Your task to perform on an android device: Show the shopping cart on amazon.com. Search for "usb-c to usb-b" on amazon.com, select the first entry, add it to the cart, then select checkout. Image 0: 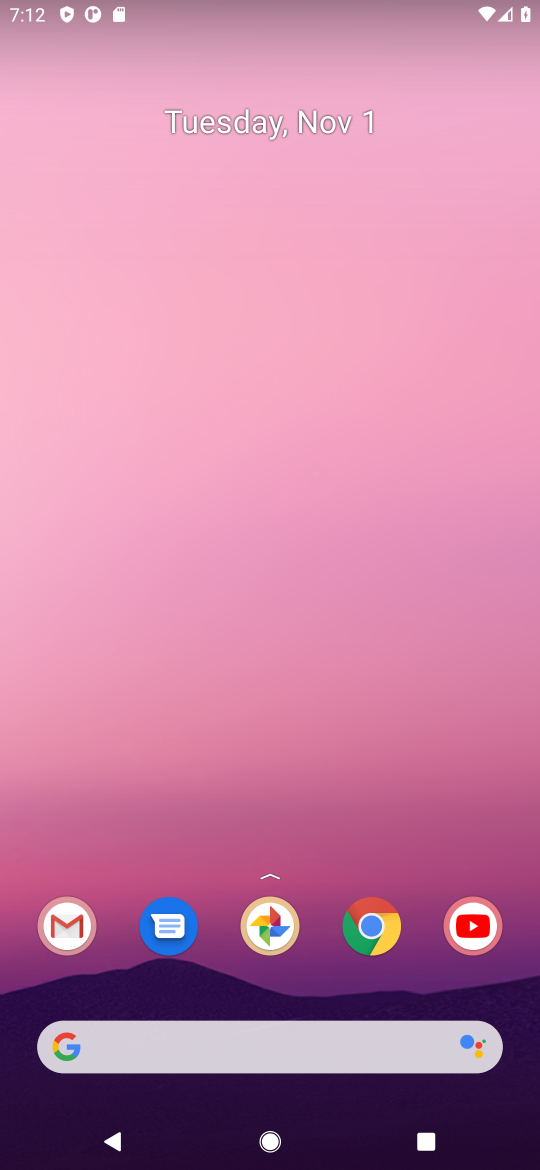
Step 0: press home button
Your task to perform on an android device: Show the shopping cart on amazon.com. Search for "usb-c to usb-b" on amazon.com, select the first entry, add it to the cart, then select checkout. Image 1: 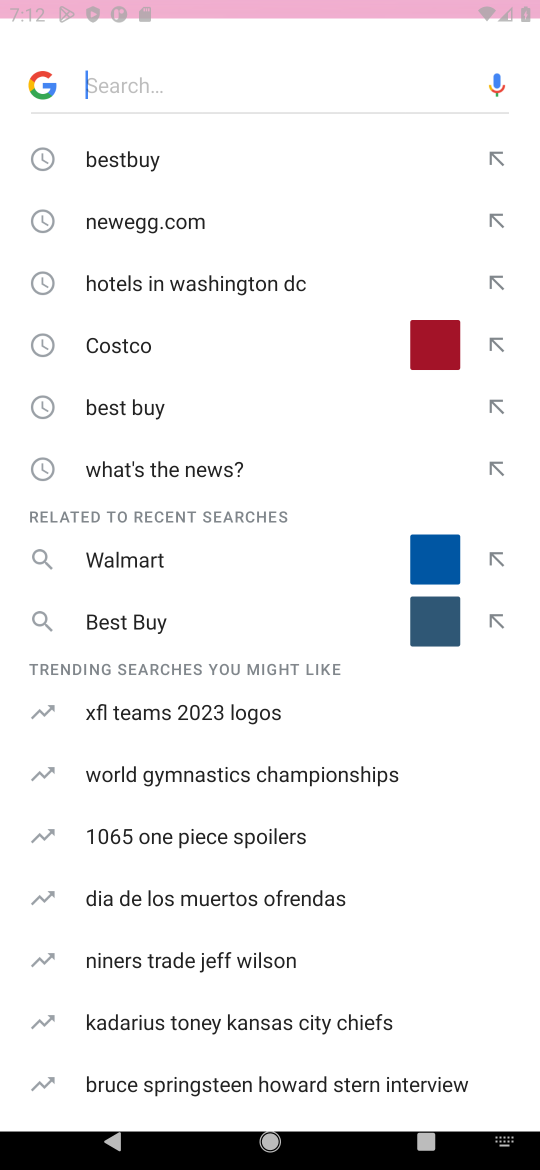
Step 1: click (380, 918)
Your task to perform on an android device: Show the shopping cart on amazon.com. Search for "usb-c to usb-b" on amazon.com, select the first entry, add it to the cart, then select checkout. Image 2: 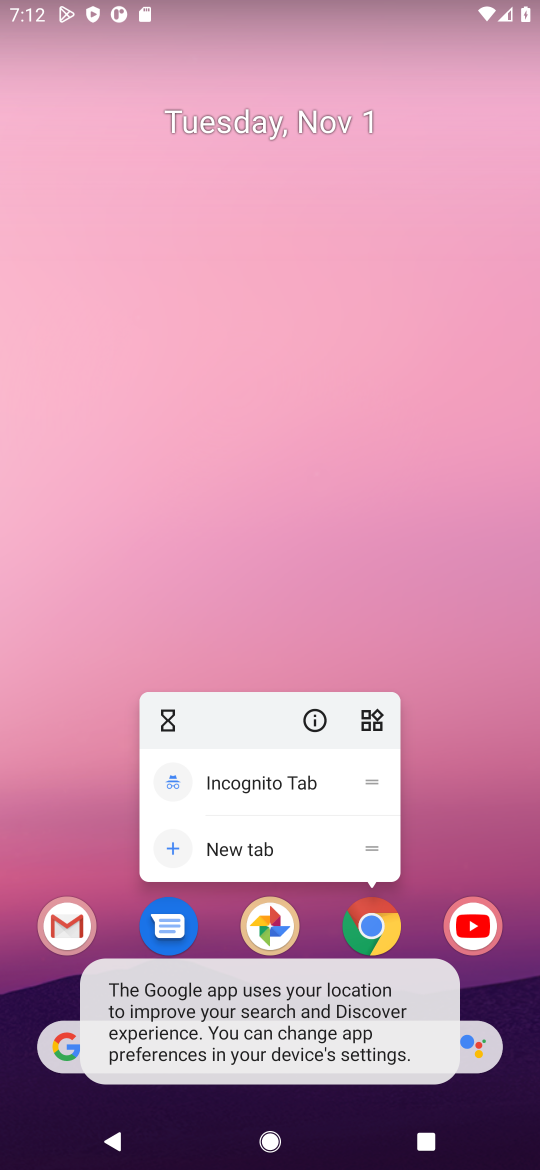
Step 2: click (379, 921)
Your task to perform on an android device: Show the shopping cart on amazon.com. Search for "usb-c to usb-b" on amazon.com, select the first entry, add it to the cart, then select checkout. Image 3: 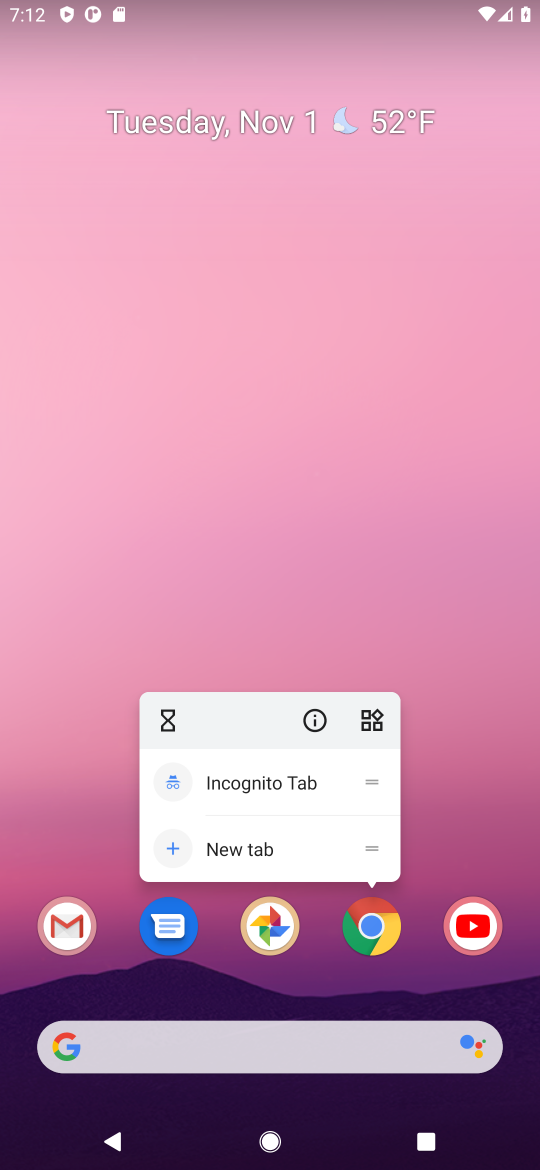
Step 3: click (379, 921)
Your task to perform on an android device: Show the shopping cart on amazon.com. Search for "usb-c to usb-b" on amazon.com, select the first entry, add it to the cart, then select checkout. Image 4: 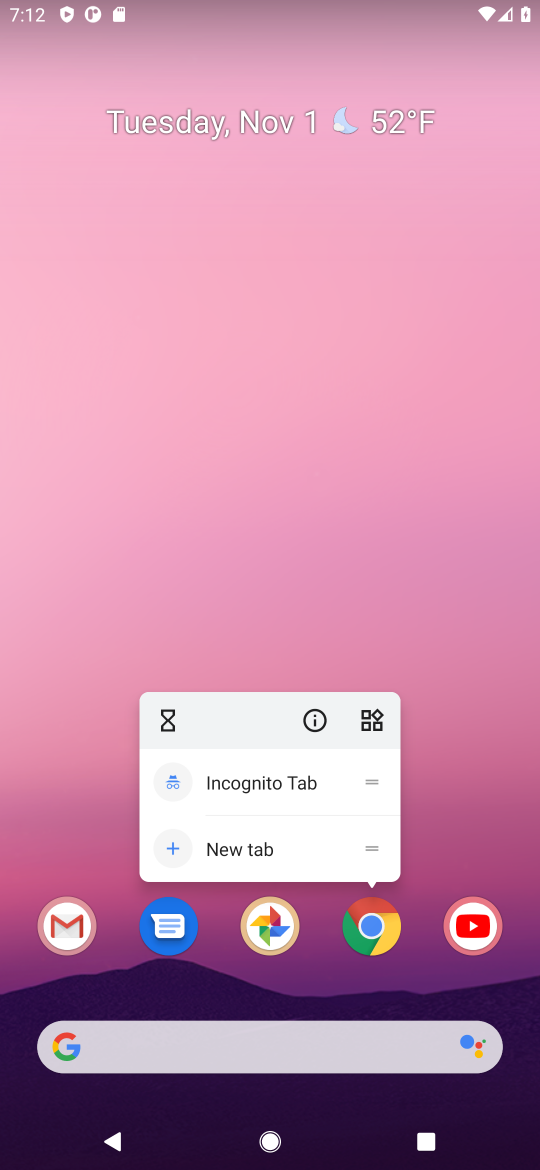
Step 4: click (379, 921)
Your task to perform on an android device: Show the shopping cart on amazon.com. Search for "usb-c to usb-b" on amazon.com, select the first entry, add it to the cart, then select checkout. Image 5: 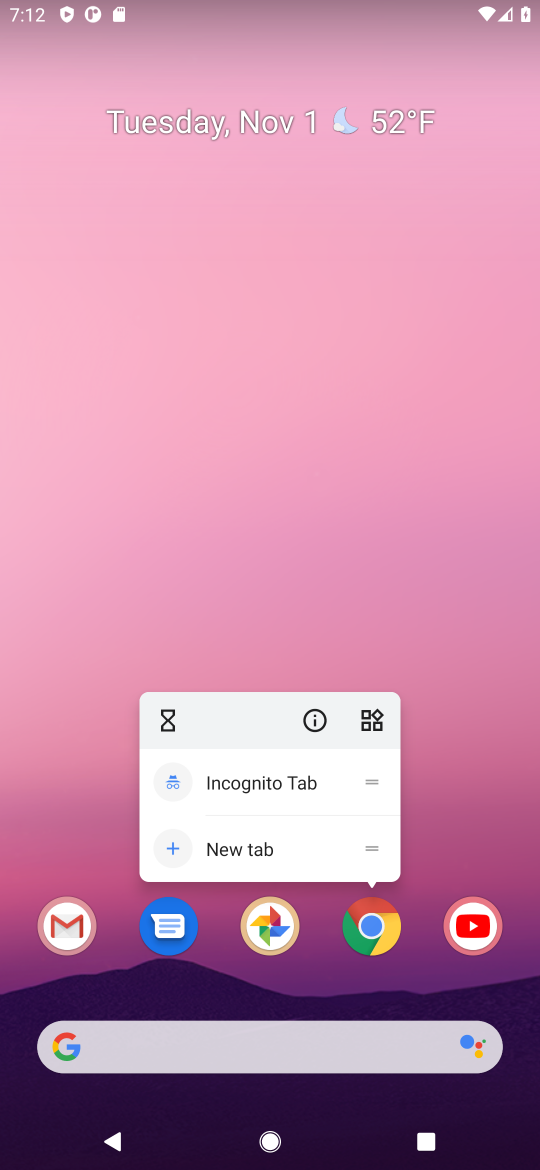
Step 5: click (362, 918)
Your task to perform on an android device: Show the shopping cart on amazon.com. Search for "usb-c to usb-b" on amazon.com, select the first entry, add it to the cart, then select checkout. Image 6: 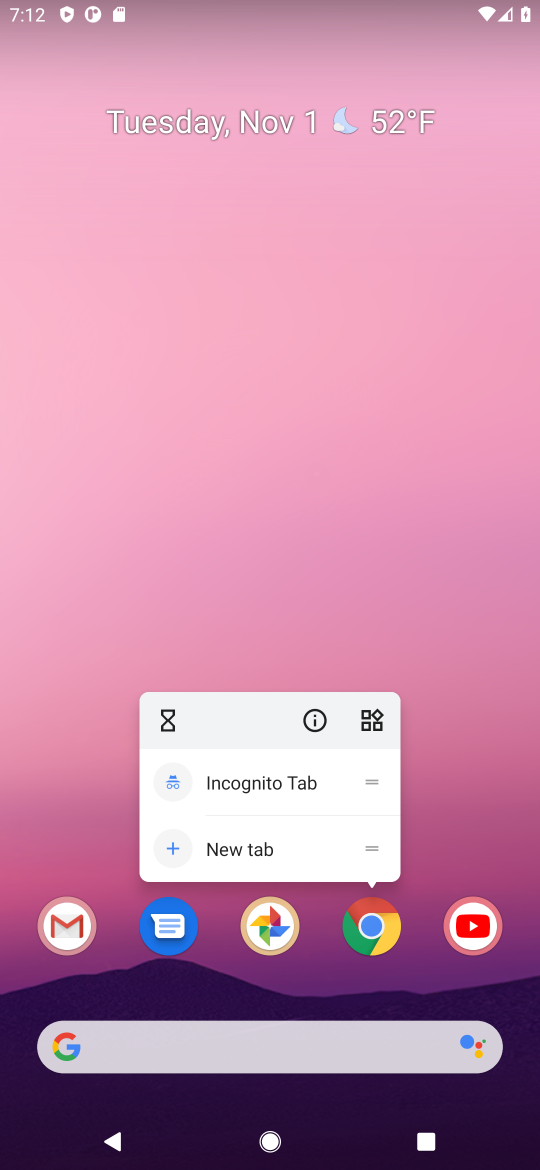
Step 6: click (359, 915)
Your task to perform on an android device: Show the shopping cart on amazon.com. Search for "usb-c to usb-b" on amazon.com, select the first entry, add it to the cart, then select checkout. Image 7: 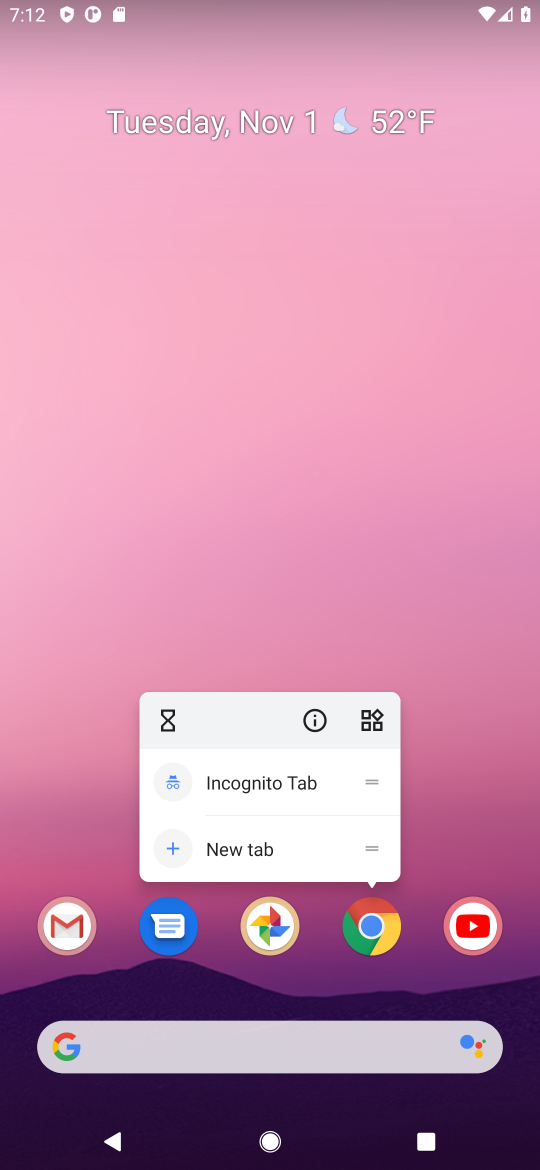
Step 7: click (377, 955)
Your task to perform on an android device: Show the shopping cart on amazon.com. Search for "usb-c to usb-b" on amazon.com, select the first entry, add it to the cart, then select checkout. Image 8: 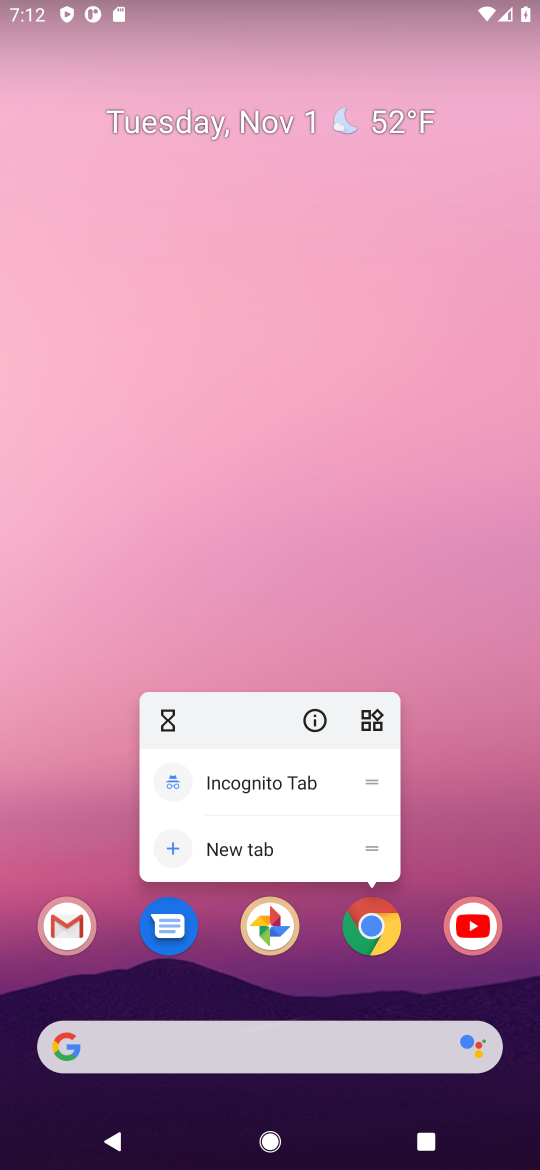
Step 8: press home button
Your task to perform on an android device: Show the shopping cart on amazon.com. Search for "usb-c to usb-b" on amazon.com, select the first entry, add it to the cart, then select checkout. Image 9: 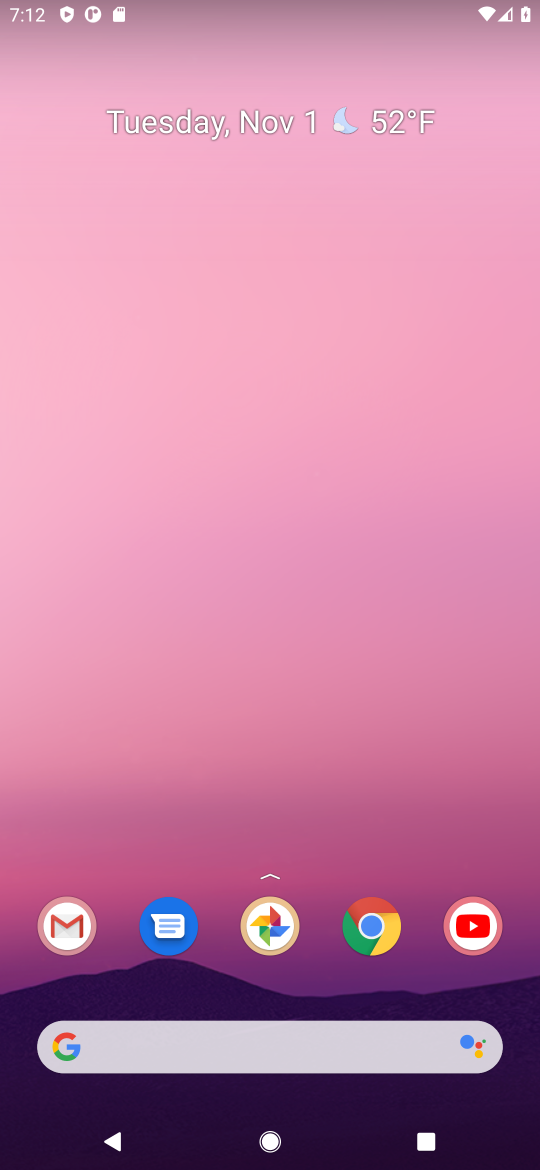
Step 9: press home button
Your task to perform on an android device: Show the shopping cart on amazon.com. Search for "usb-c to usb-b" on amazon.com, select the first entry, add it to the cart, then select checkout. Image 10: 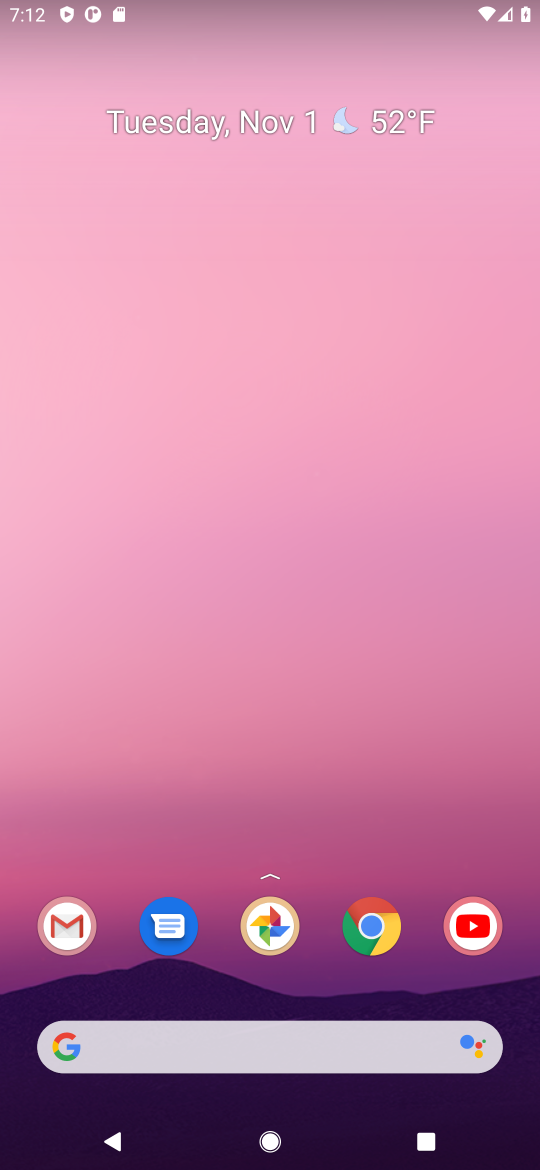
Step 10: click (387, 950)
Your task to perform on an android device: Show the shopping cart on amazon.com. Search for "usb-c to usb-b" on amazon.com, select the first entry, add it to the cart, then select checkout. Image 11: 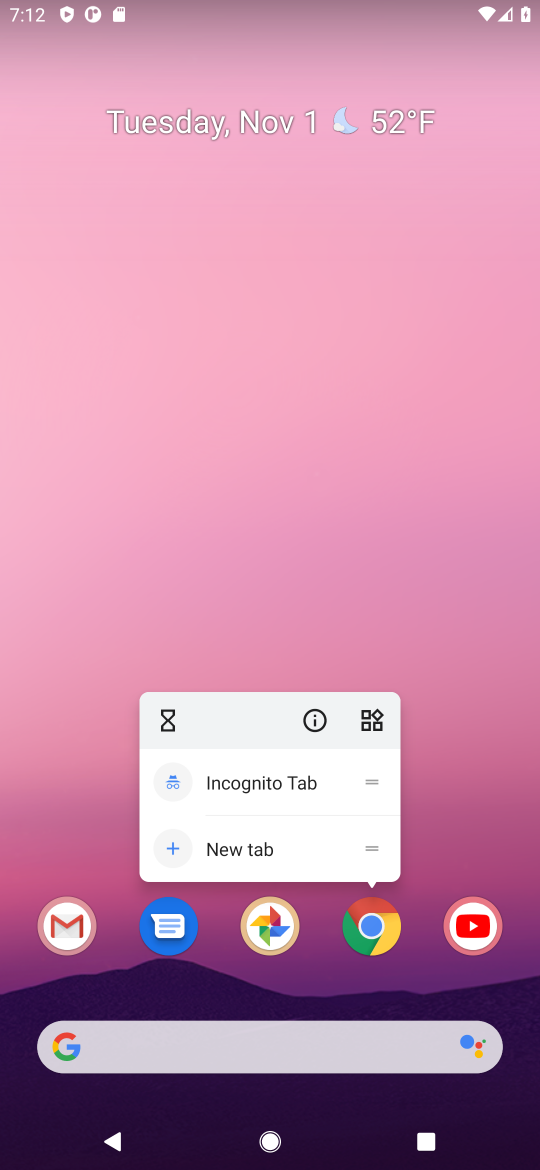
Step 11: click (383, 944)
Your task to perform on an android device: Show the shopping cart on amazon.com. Search for "usb-c to usb-b" on amazon.com, select the first entry, add it to the cart, then select checkout. Image 12: 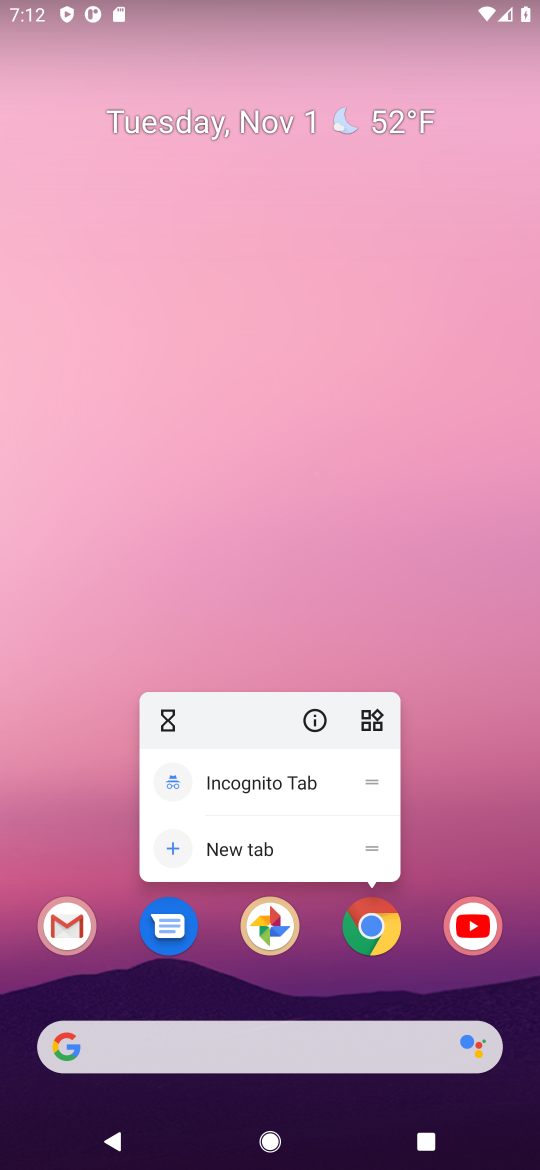
Step 12: click (385, 927)
Your task to perform on an android device: Show the shopping cart on amazon.com. Search for "usb-c to usb-b" on amazon.com, select the first entry, add it to the cart, then select checkout. Image 13: 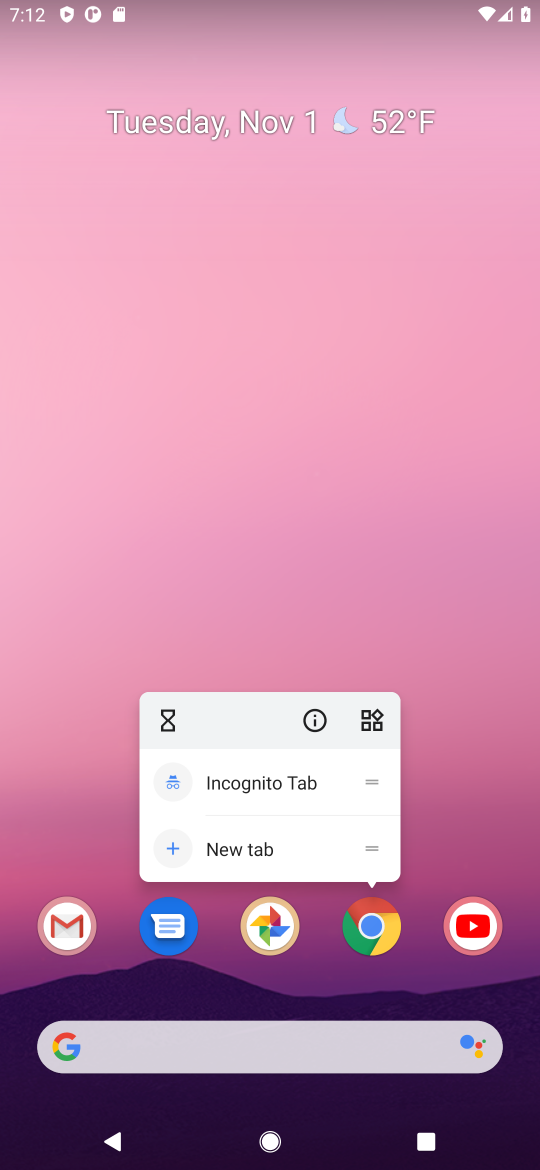
Step 13: click (375, 917)
Your task to perform on an android device: Show the shopping cart on amazon.com. Search for "usb-c to usb-b" on amazon.com, select the first entry, add it to the cart, then select checkout. Image 14: 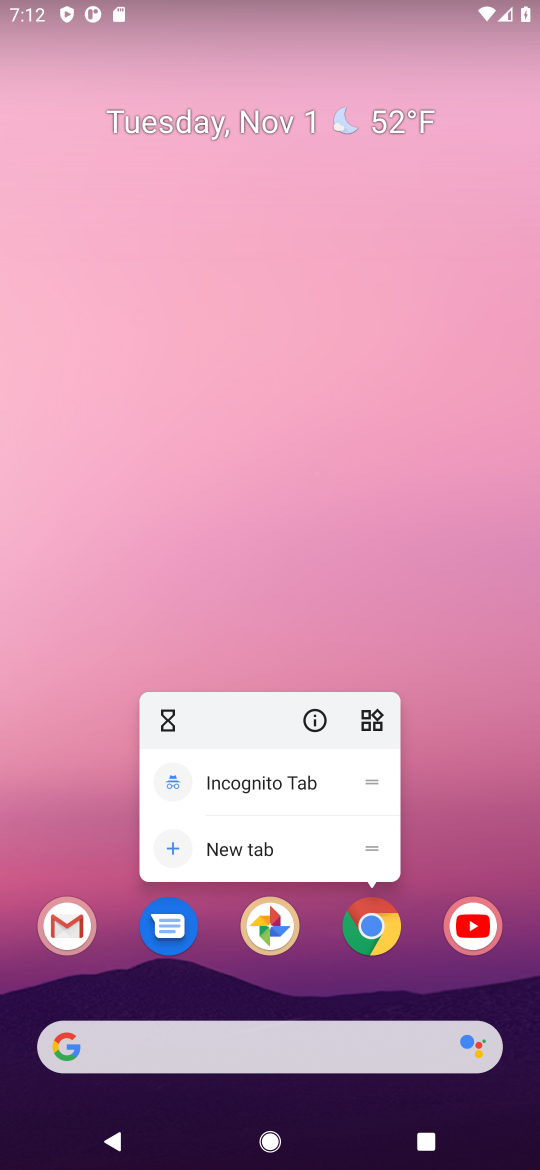
Step 14: click (376, 919)
Your task to perform on an android device: Show the shopping cart on amazon.com. Search for "usb-c to usb-b" on amazon.com, select the first entry, add it to the cart, then select checkout. Image 15: 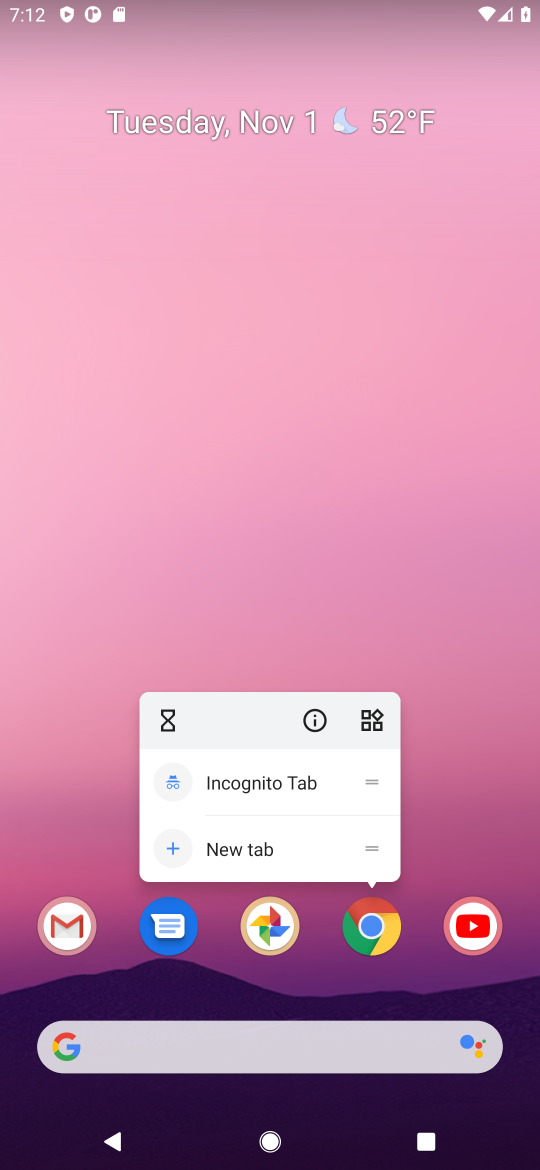
Step 15: press home button
Your task to perform on an android device: Show the shopping cart on amazon.com. Search for "usb-c to usb-b" on amazon.com, select the first entry, add it to the cart, then select checkout. Image 16: 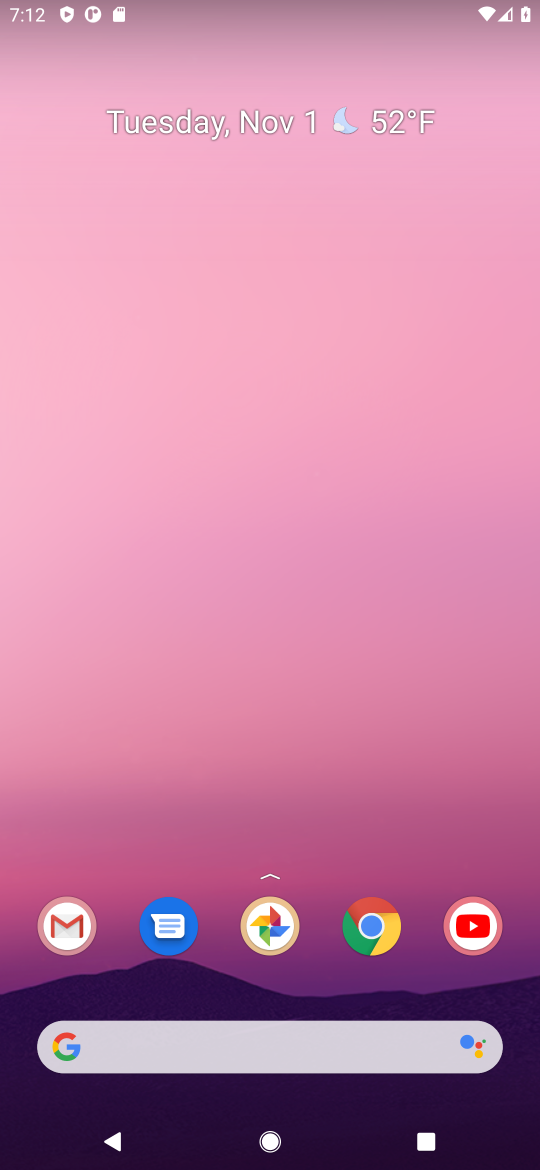
Step 16: press home button
Your task to perform on an android device: Show the shopping cart on amazon.com. Search for "usb-c to usb-b" on amazon.com, select the first entry, add it to the cart, then select checkout. Image 17: 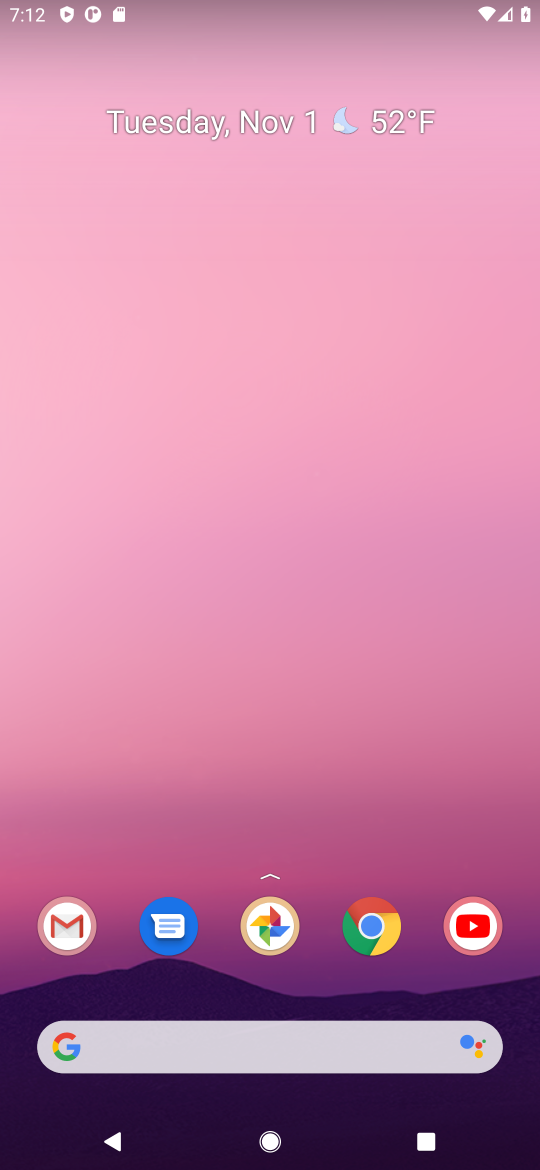
Step 17: press back button
Your task to perform on an android device: Show the shopping cart on amazon.com. Search for "usb-c to usb-b" on amazon.com, select the first entry, add it to the cart, then select checkout. Image 18: 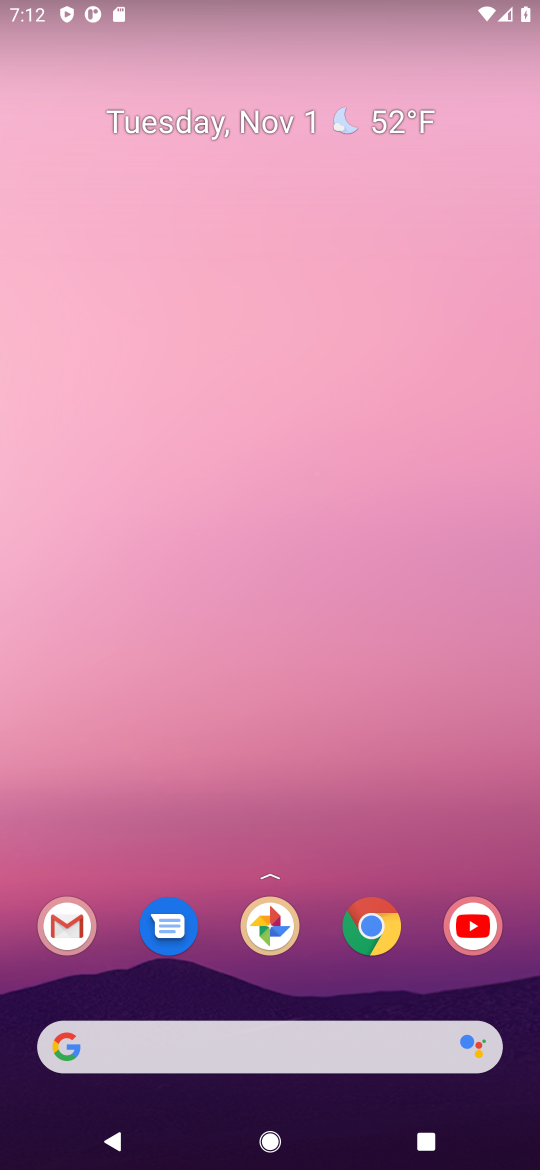
Step 18: press home button
Your task to perform on an android device: Show the shopping cart on amazon.com. Search for "usb-c to usb-b" on amazon.com, select the first entry, add it to the cart, then select checkout. Image 19: 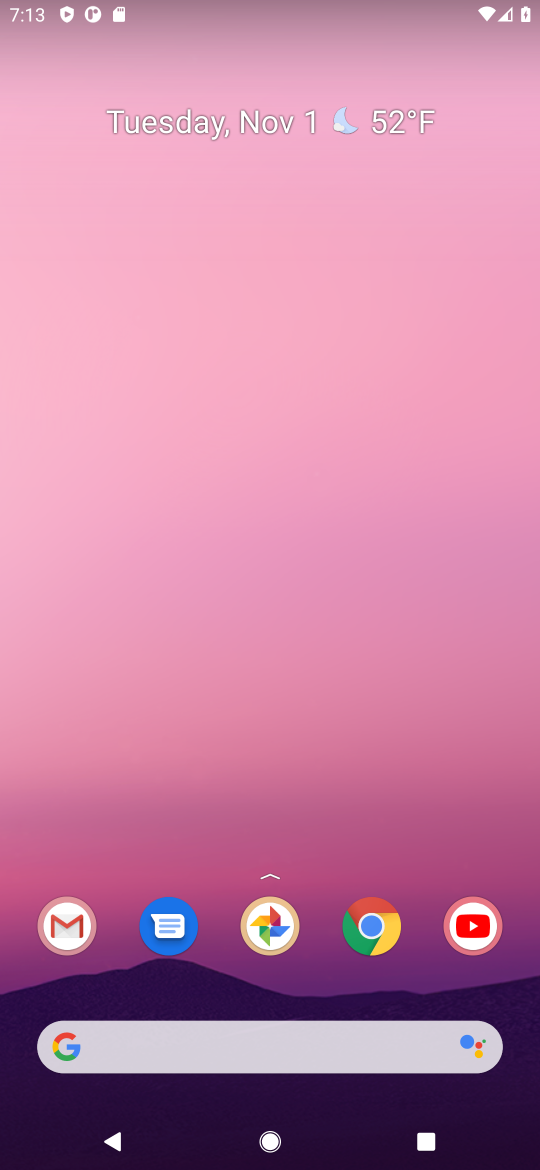
Step 19: press back button
Your task to perform on an android device: Show the shopping cart on amazon.com. Search for "usb-c to usb-b" on amazon.com, select the first entry, add it to the cart, then select checkout. Image 20: 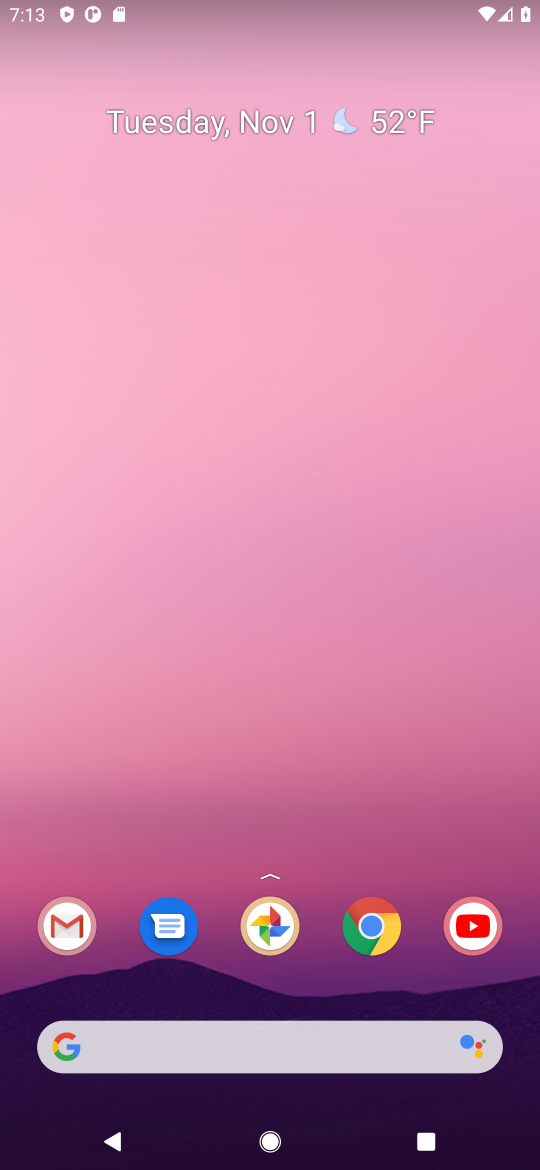
Step 20: press home button
Your task to perform on an android device: Show the shopping cart on amazon.com. Search for "usb-c to usb-b" on amazon.com, select the first entry, add it to the cart, then select checkout. Image 21: 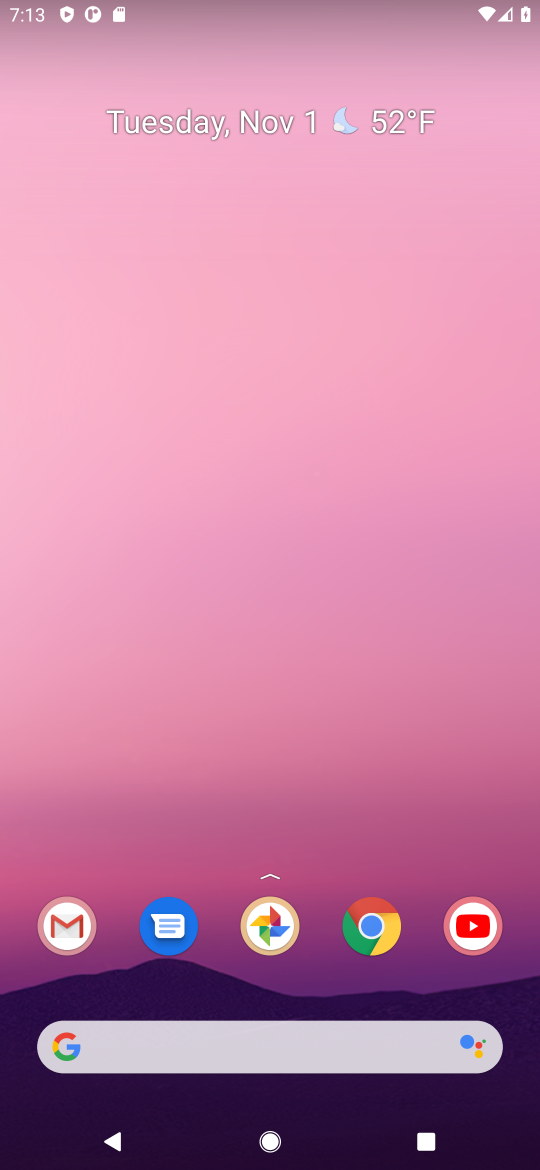
Step 21: click (407, 942)
Your task to perform on an android device: Show the shopping cart on amazon.com. Search for "usb-c to usb-b" on amazon.com, select the first entry, add it to the cart, then select checkout. Image 22: 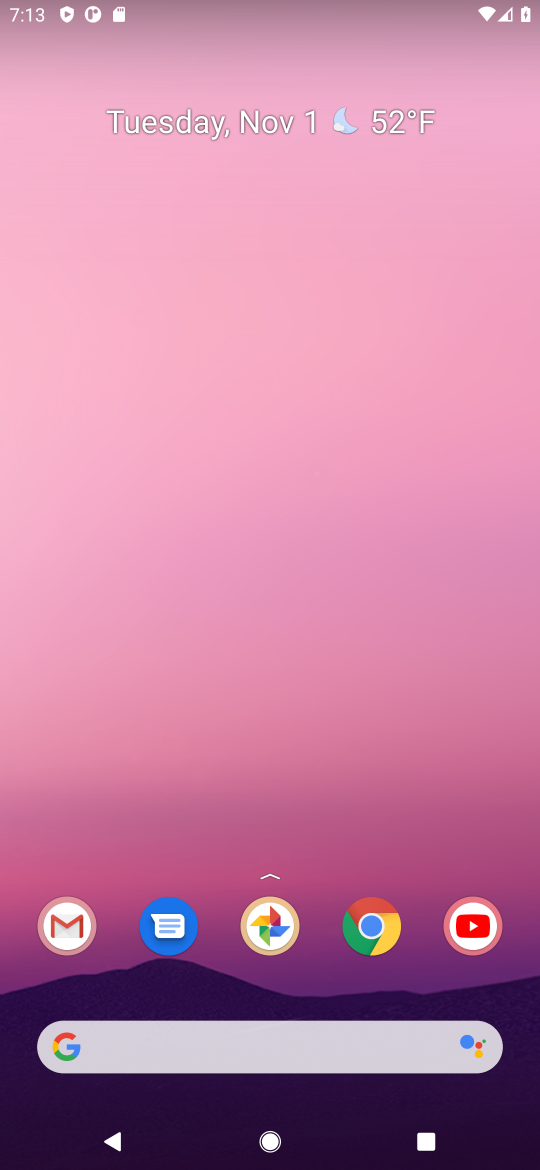
Step 22: click (395, 935)
Your task to perform on an android device: Show the shopping cart on amazon.com. Search for "usb-c to usb-b" on amazon.com, select the first entry, add it to the cart, then select checkout. Image 23: 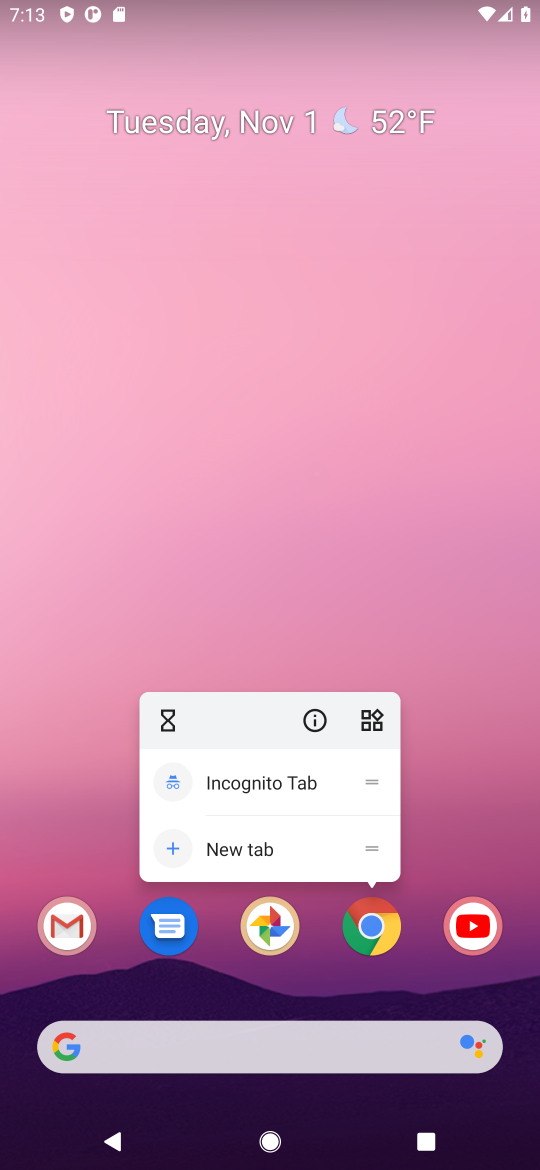
Step 23: click (384, 920)
Your task to perform on an android device: Show the shopping cart on amazon.com. Search for "usb-c to usb-b" on amazon.com, select the first entry, add it to the cart, then select checkout. Image 24: 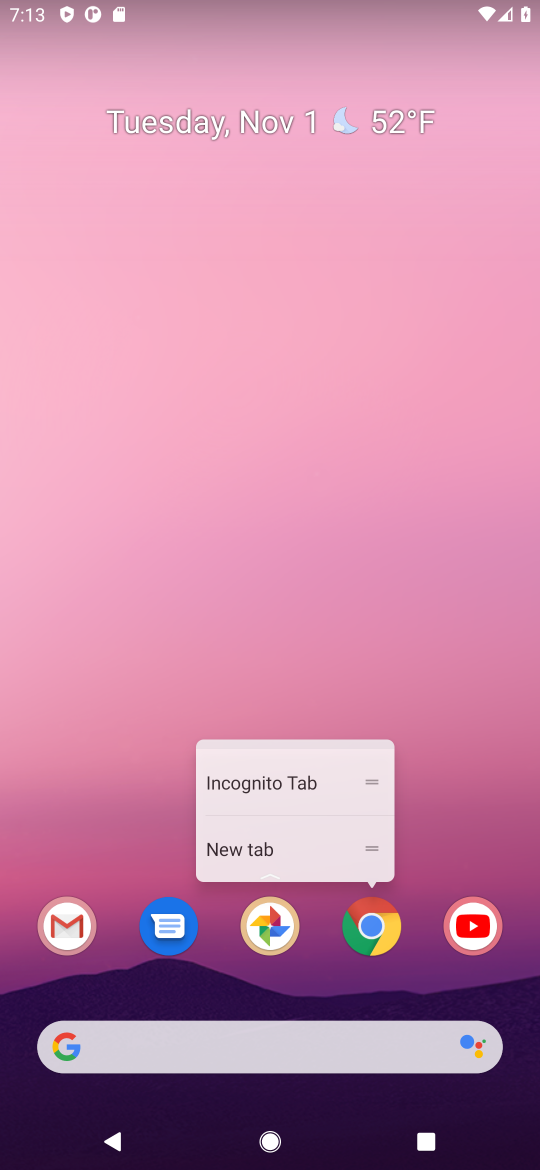
Step 24: click (384, 922)
Your task to perform on an android device: Show the shopping cart on amazon.com. Search for "usb-c to usb-b" on amazon.com, select the first entry, add it to the cart, then select checkout. Image 25: 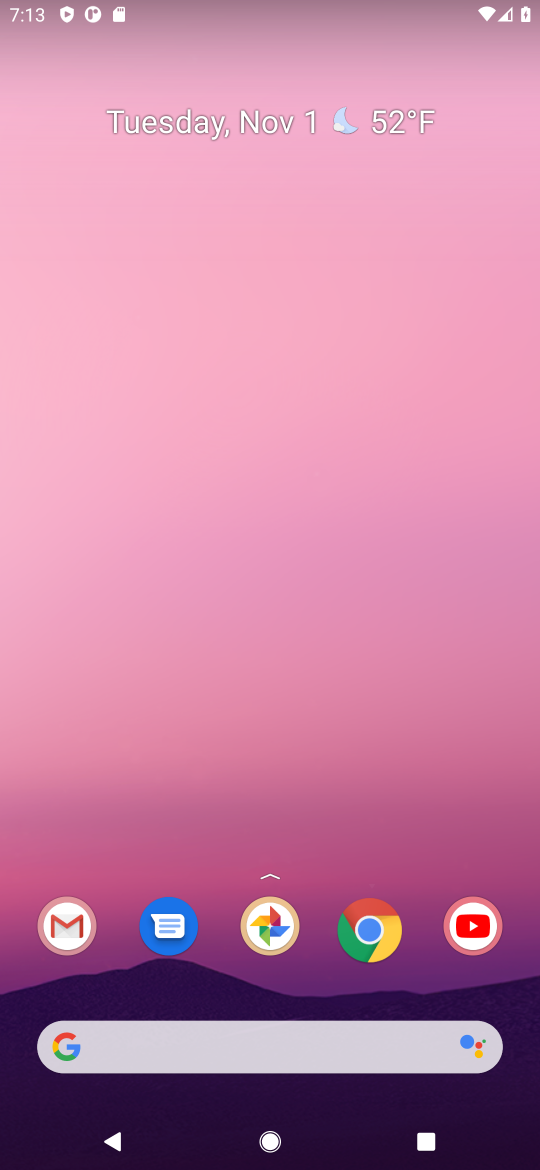
Step 25: click (385, 941)
Your task to perform on an android device: Show the shopping cart on amazon.com. Search for "usb-c to usb-b" on amazon.com, select the first entry, add it to the cart, then select checkout. Image 26: 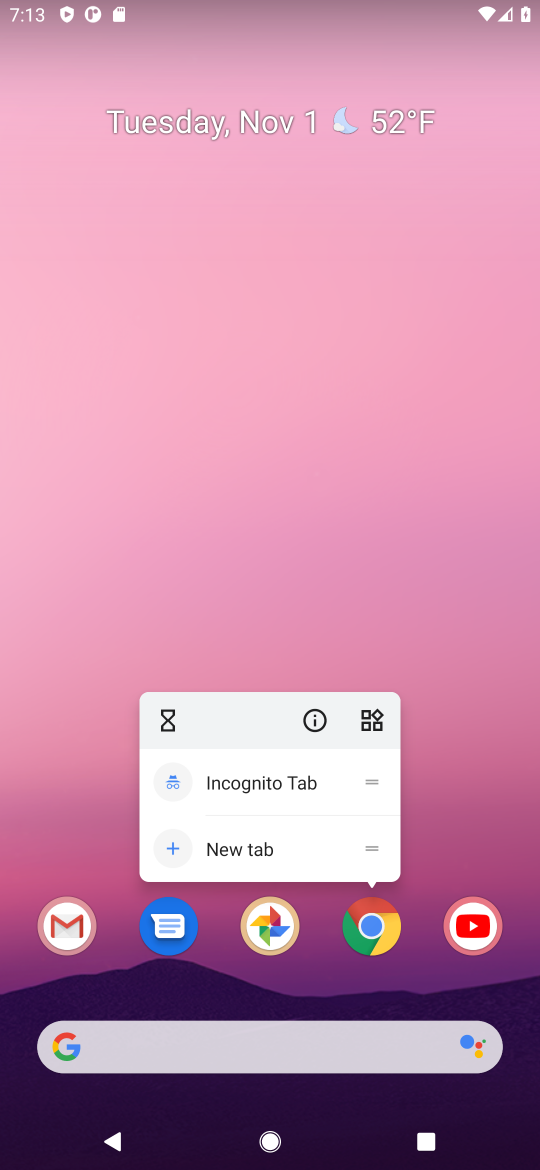
Step 26: click (380, 948)
Your task to perform on an android device: Show the shopping cart on amazon.com. Search for "usb-c to usb-b" on amazon.com, select the first entry, add it to the cart, then select checkout. Image 27: 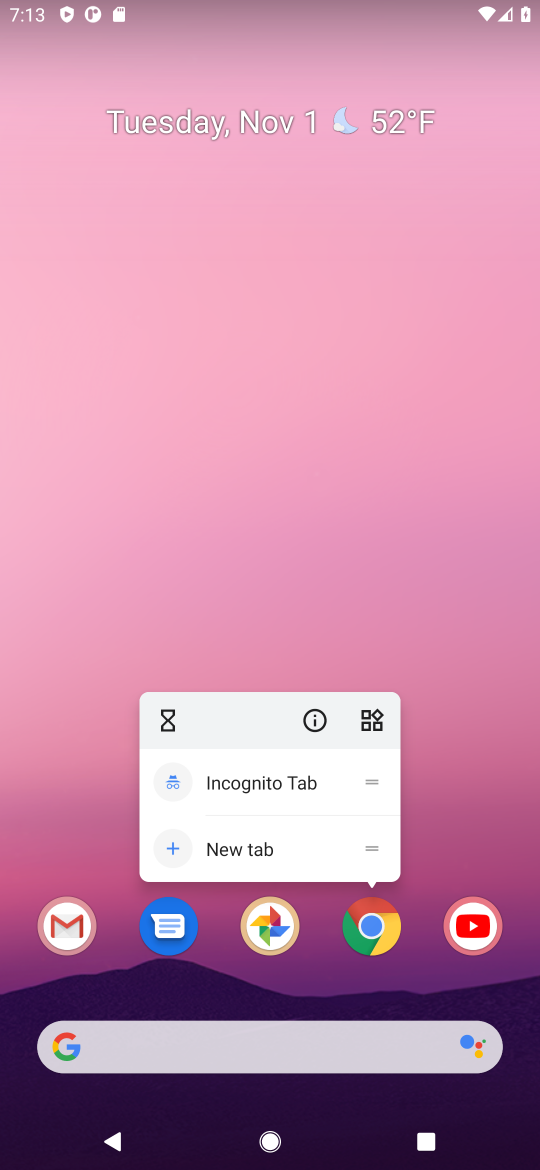
Step 27: click (378, 952)
Your task to perform on an android device: Show the shopping cart on amazon.com. Search for "usb-c to usb-b" on amazon.com, select the first entry, add it to the cart, then select checkout. Image 28: 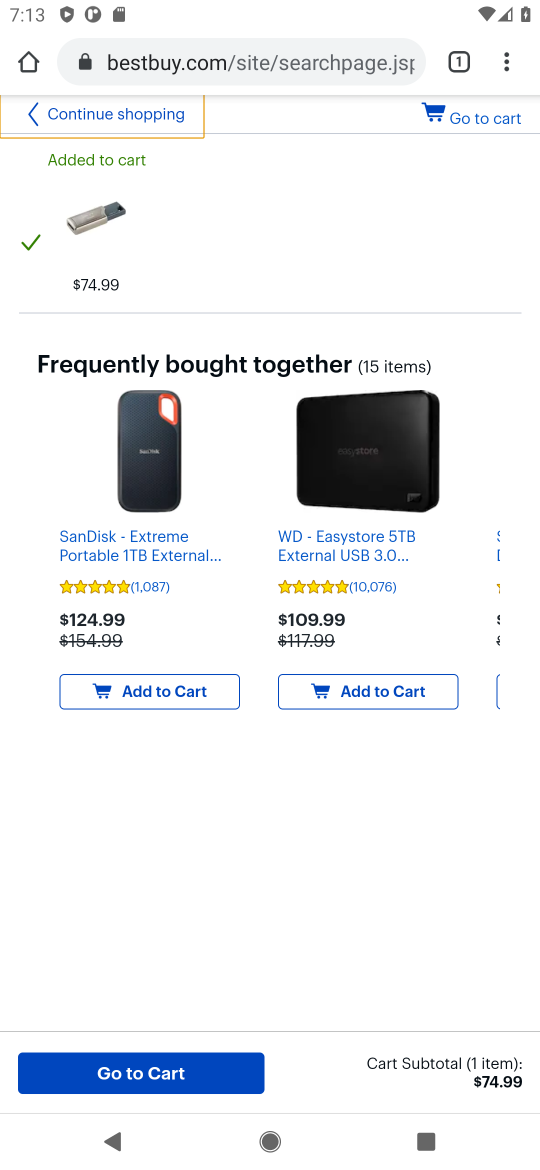
Step 28: click (159, 58)
Your task to perform on an android device: Show the shopping cart on amazon.com. Search for "usb-c to usb-b" on amazon.com, select the first entry, add it to the cart, then select checkout. Image 29: 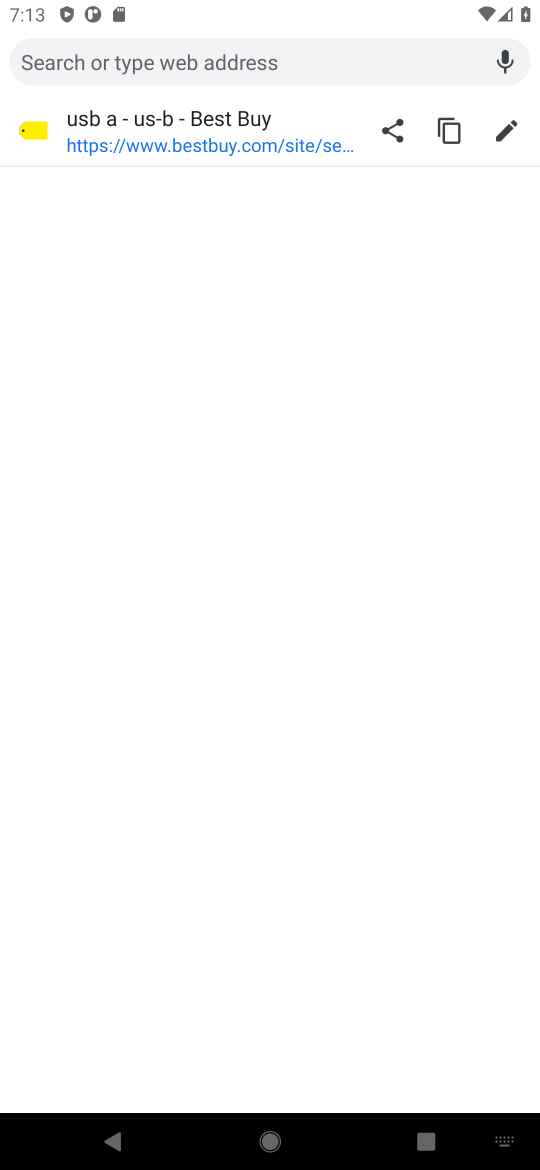
Step 29: type "amazon.com"
Your task to perform on an android device: Show the shopping cart on amazon.com. Search for "usb-c to usb-b" on amazon.com, select the first entry, add it to the cart, then select checkout. Image 30: 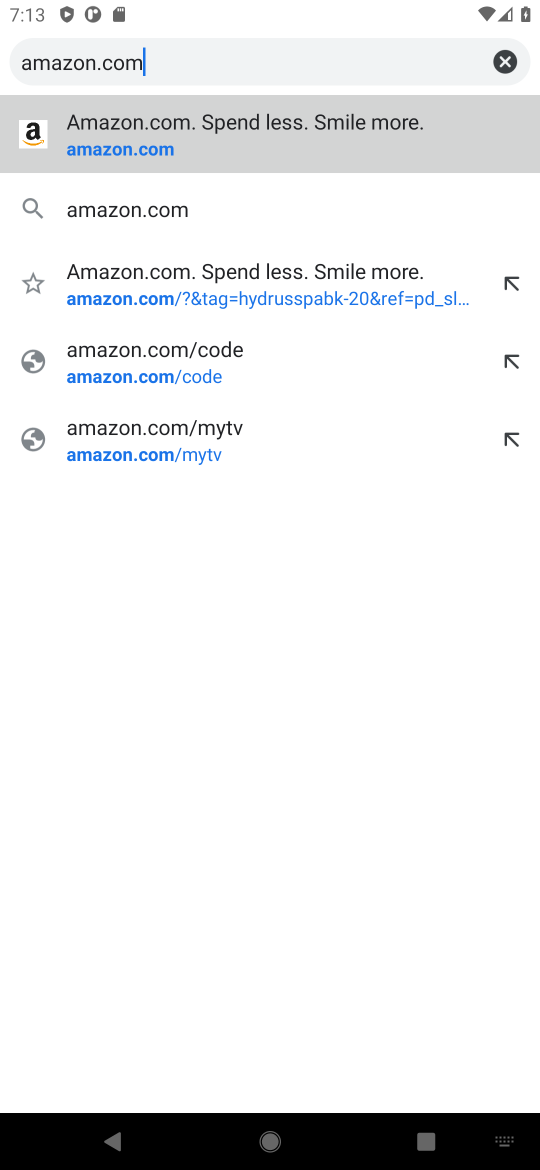
Step 30: click (73, 124)
Your task to perform on an android device: Show the shopping cart on amazon.com. Search for "usb-c to usb-b" on amazon.com, select the first entry, add it to the cart, then select checkout. Image 31: 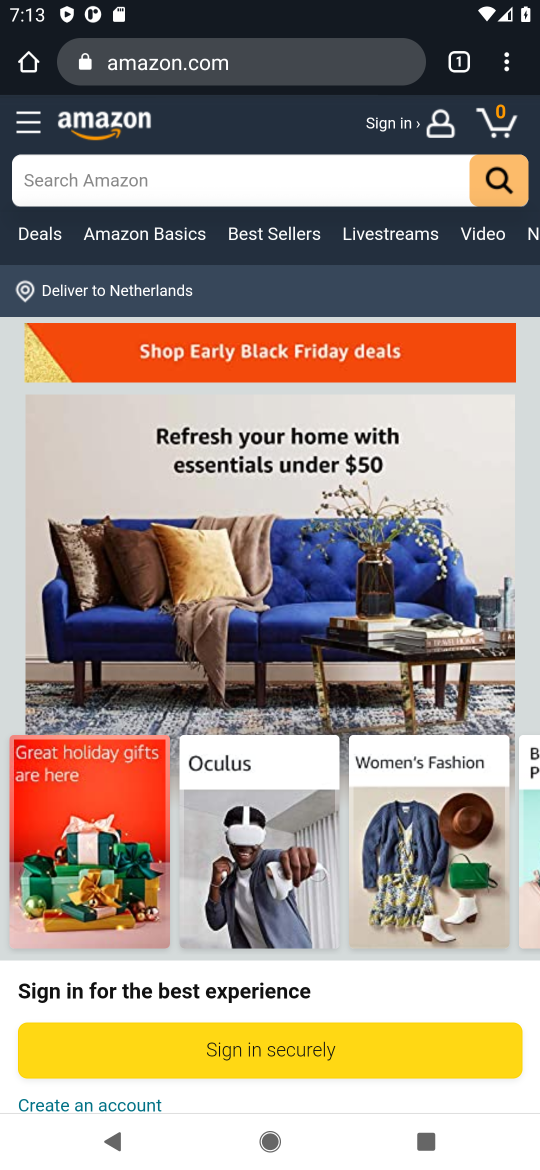
Step 31: click (260, 183)
Your task to perform on an android device: Show the shopping cart on amazon.com. Search for "usb-c to usb-b" on amazon.com, select the first entry, add it to the cart, then select checkout. Image 32: 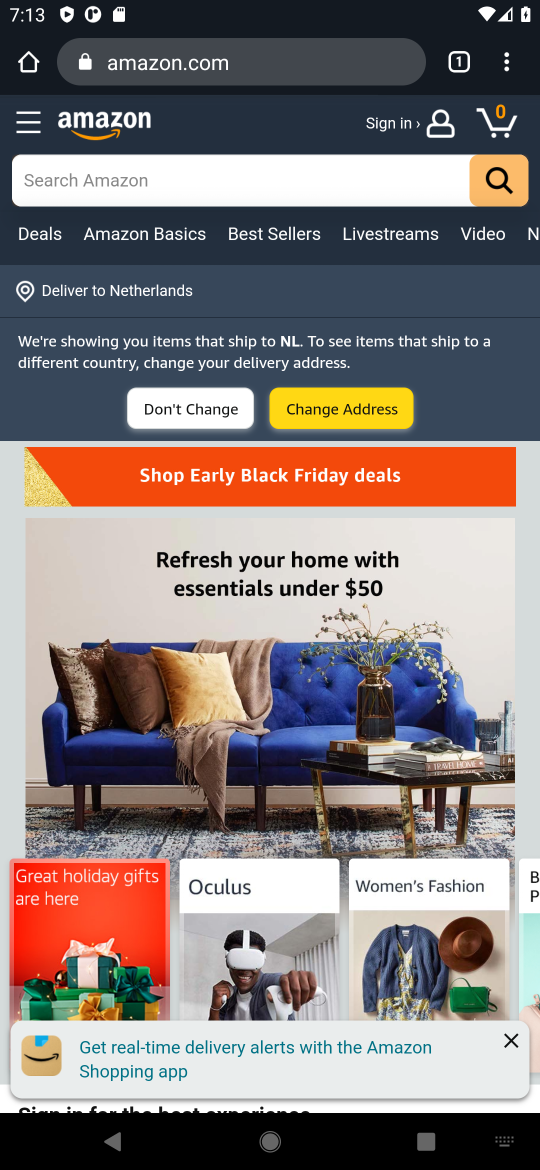
Step 32: type "usb -c to usb -b"
Your task to perform on an android device: Show the shopping cart on amazon.com. Search for "usb-c to usb-b" on amazon.com, select the first entry, add it to the cart, then select checkout. Image 33: 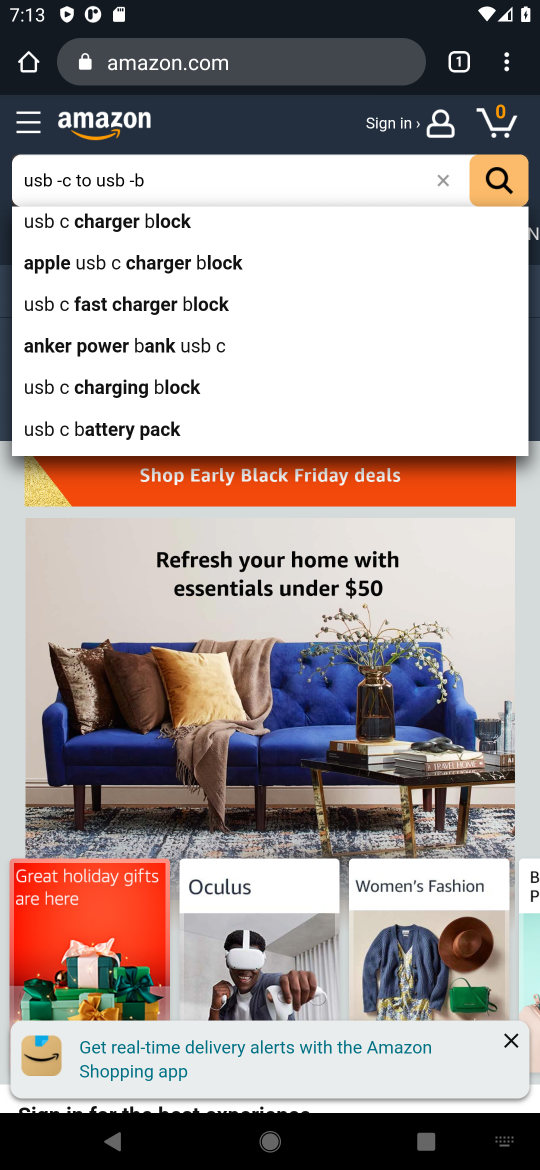
Step 33: click (479, 183)
Your task to perform on an android device: Show the shopping cart on amazon.com. Search for "usb-c to usb-b" on amazon.com, select the first entry, add it to the cart, then select checkout. Image 34: 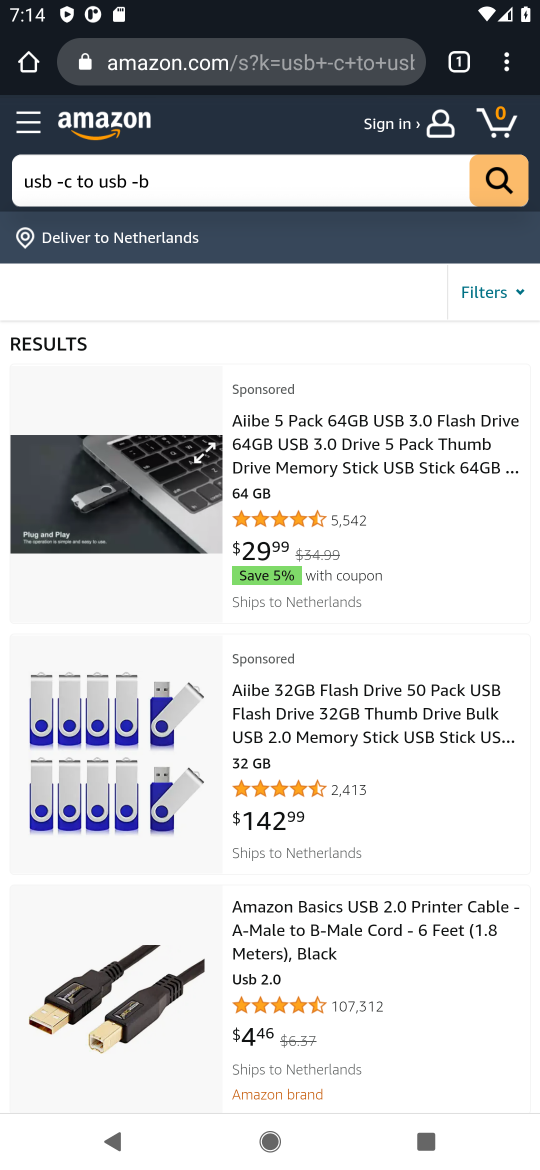
Step 34: drag from (220, 925) to (281, 237)
Your task to perform on an android device: Show the shopping cart on amazon.com. Search for "usb-c to usb-b" on amazon.com, select the first entry, add it to the cart, then select checkout. Image 35: 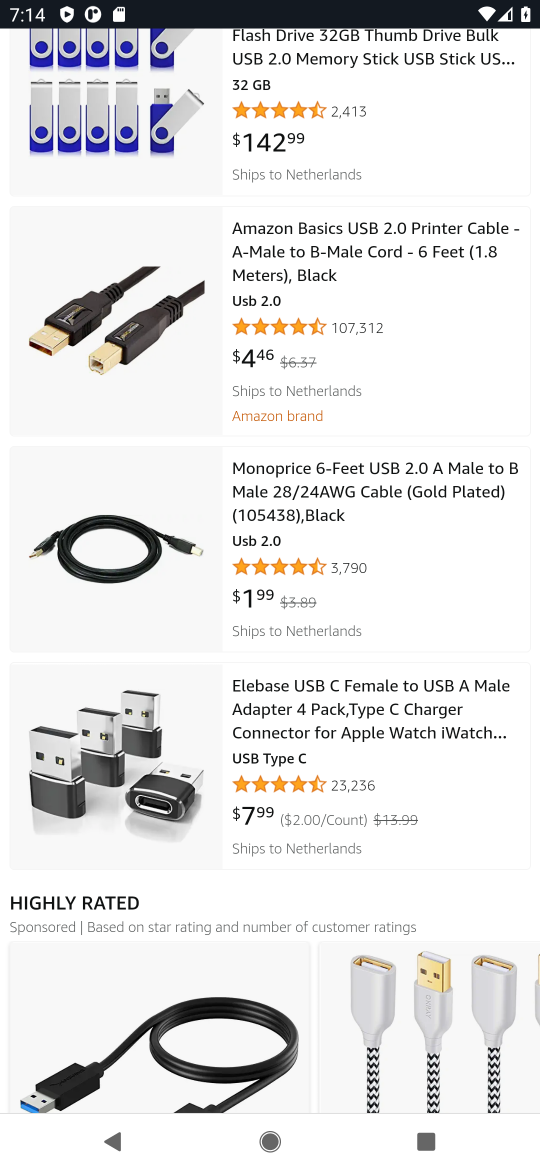
Step 35: drag from (356, 877) to (294, 325)
Your task to perform on an android device: Show the shopping cart on amazon.com. Search for "usb-c to usb-b" on amazon.com, select the first entry, add it to the cart, then select checkout. Image 36: 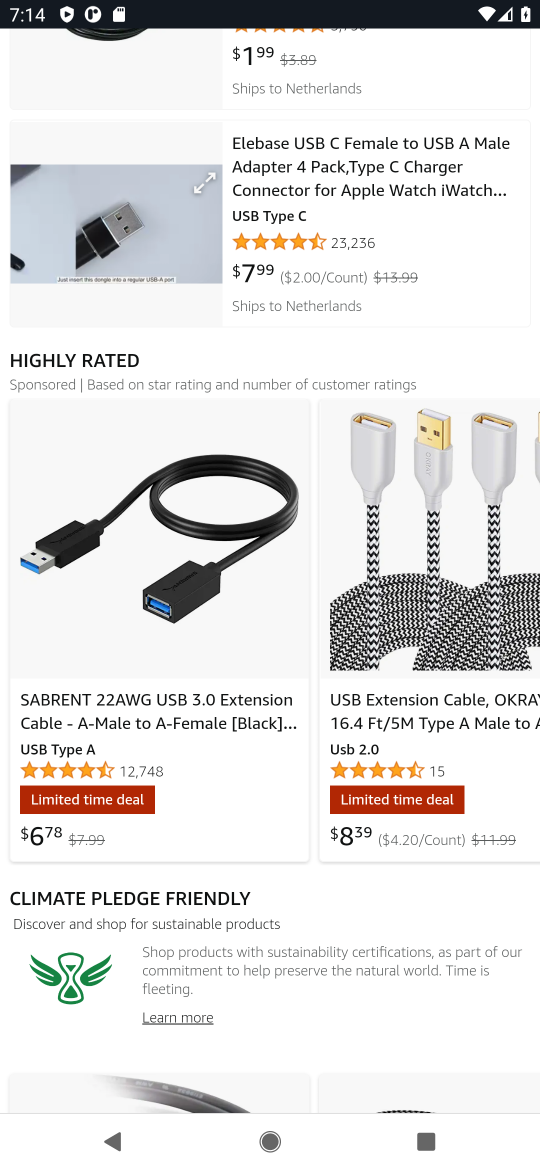
Step 36: drag from (441, 698) to (7, 630)
Your task to perform on an android device: Show the shopping cart on amazon.com. Search for "usb-c to usb-b" on amazon.com, select the first entry, add it to the cart, then select checkout. Image 37: 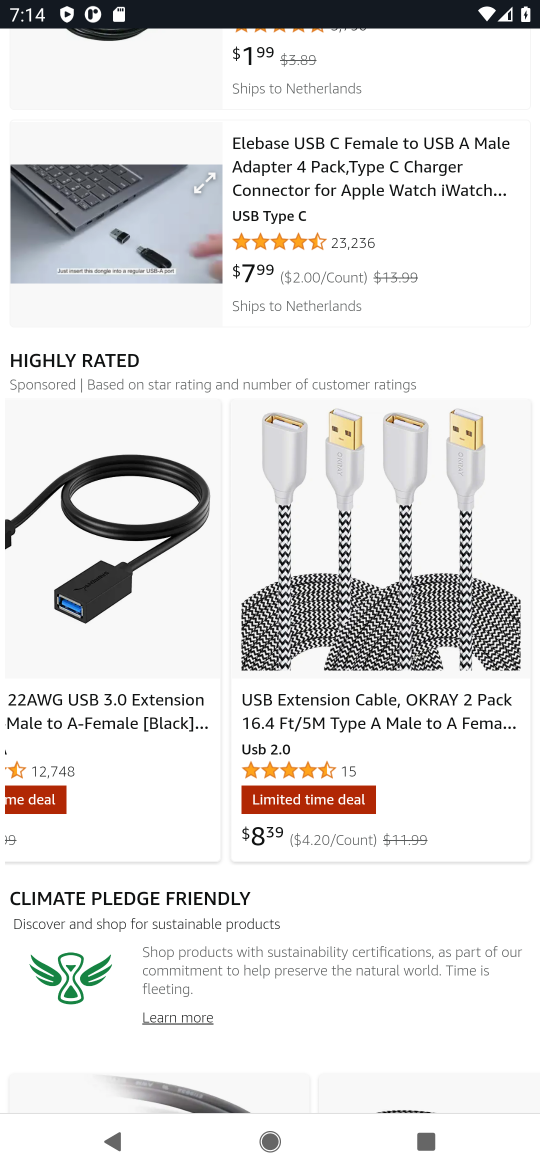
Step 37: drag from (423, 651) to (312, 563)
Your task to perform on an android device: Show the shopping cart on amazon.com. Search for "usb-c to usb-b" on amazon.com, select the first entry, add it to the cart, then select checkout. Image 38: 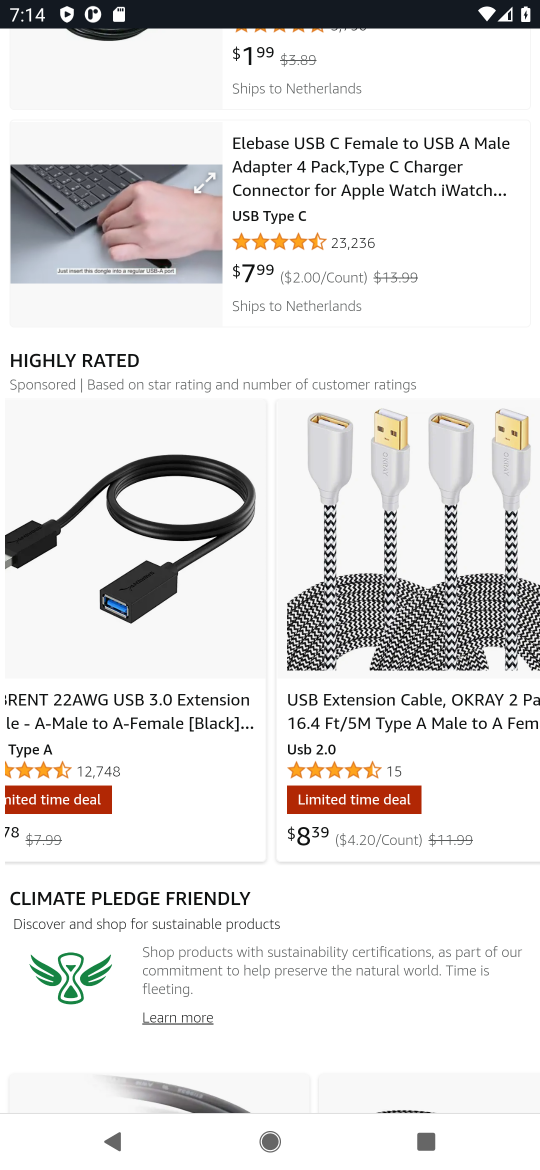
Step 38: drag from (240, 1023) to (348, 125)
Your task to perform on an android device: Show the shopping cart on amazon.com. Search for "usb-c to usb-b" on amazon.com, select the first entry, add it to the cart, then select checkout. Image 39: 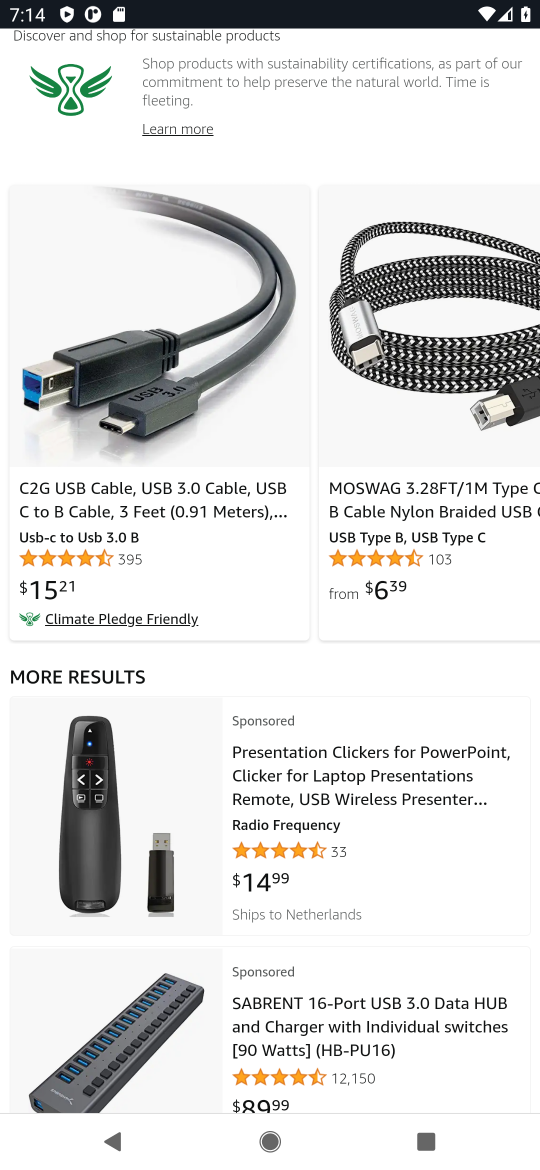
Step 39: click (144, 437)
Your task to perform on an android device: Show the shopping cart on amazon.com. Search for "usb-c to usb-b" on amazon.com, select the first entry, add it to the cart, then select checkout. Image 40: 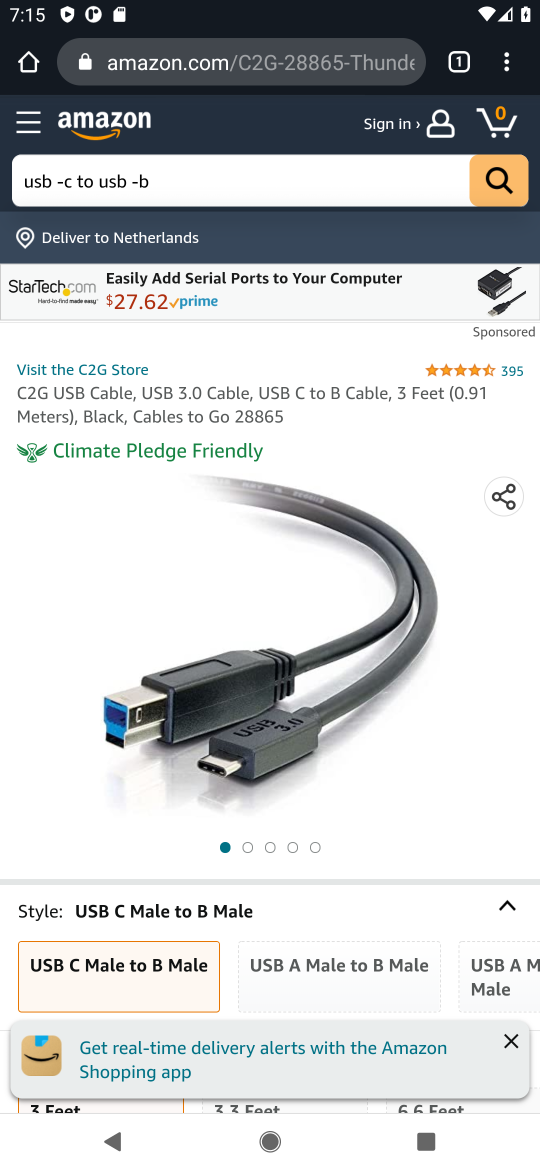
Step 40: click (513, 1041)
Your task to perform on an android device: Show the shopping cart on amazon.com. Search for "usb-c to usb-b" on amazon.com, select the first entry, add it to the cart, then select checkout. Image 41: 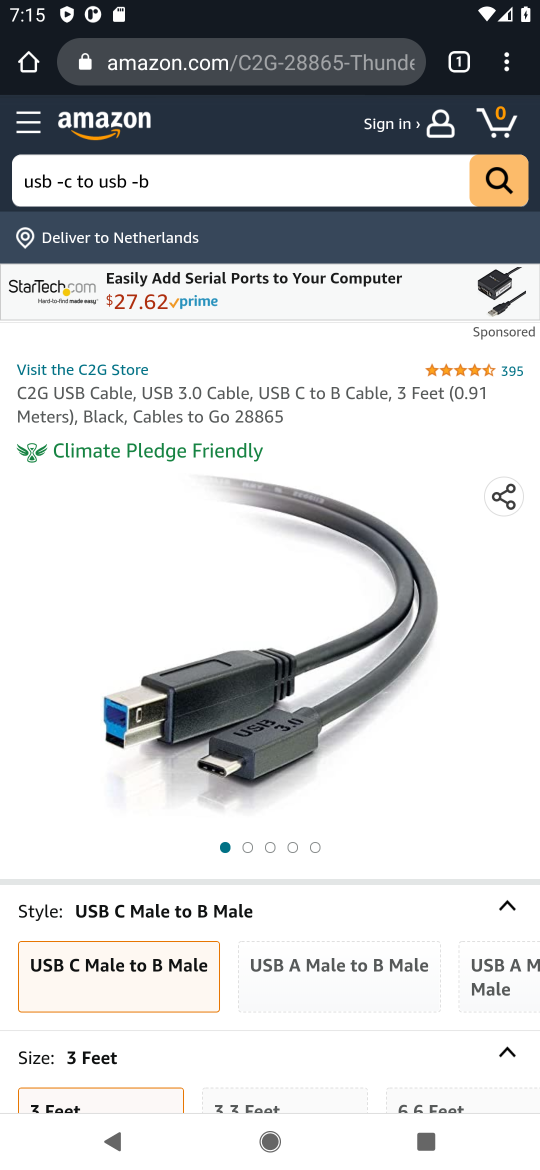
Step 41: drag from (330, 872) to (372, 198)
Your task to perform on an android device: Show the shopping cart on amazon.com. Search for "usb-c to usb-b" on amazon.com, select the first entry, add it to the cart, then select checkout. Image 42: 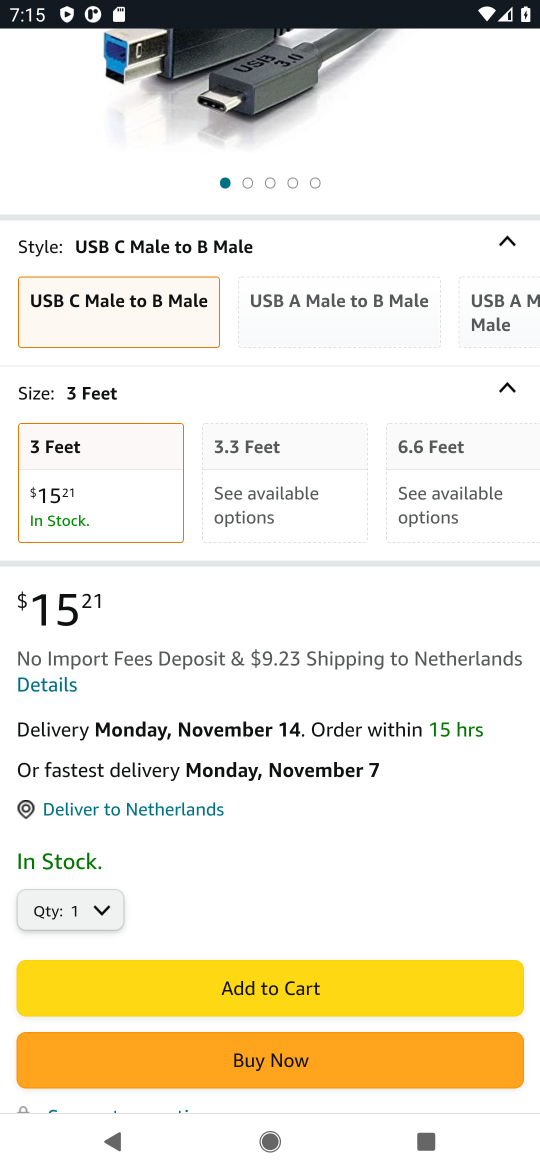
Step 42: click (277, 992)
Your task to perform on an android device: Show the shopping cart on amazon.com. Search for "usb-c to usb-b" on amazon.com, select the first entry, add it to the cart, then select checkout. Image 43: 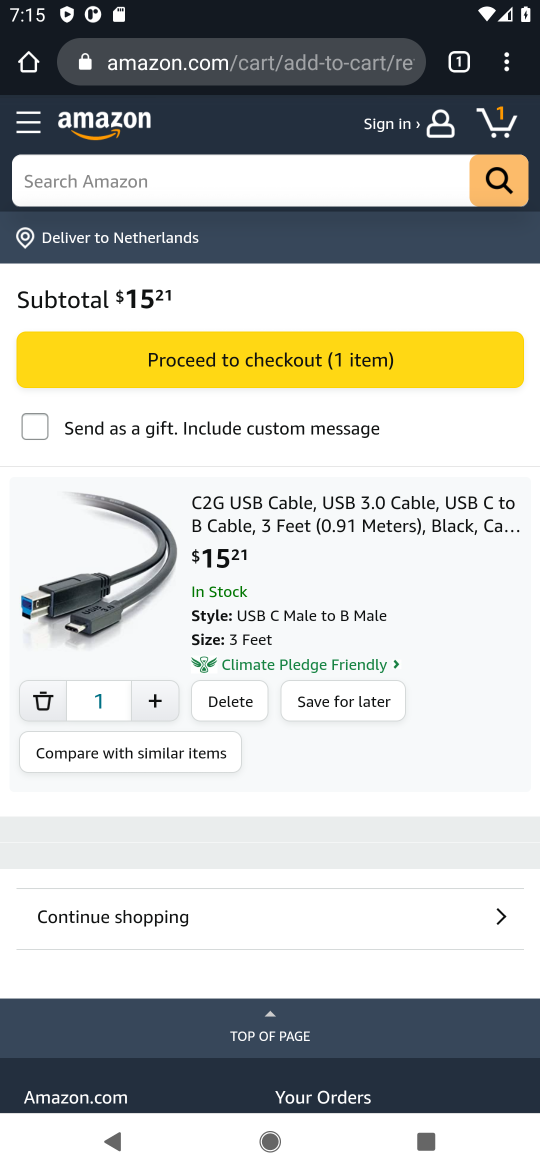
Step 43: click (226, 362)
Your task to perform on an android device: Show the shopping cart on amazon.com. Search for "usb-c to usb-b" on amazon.com, select the first entry, add it to the cart, then select checkout. Image 44: 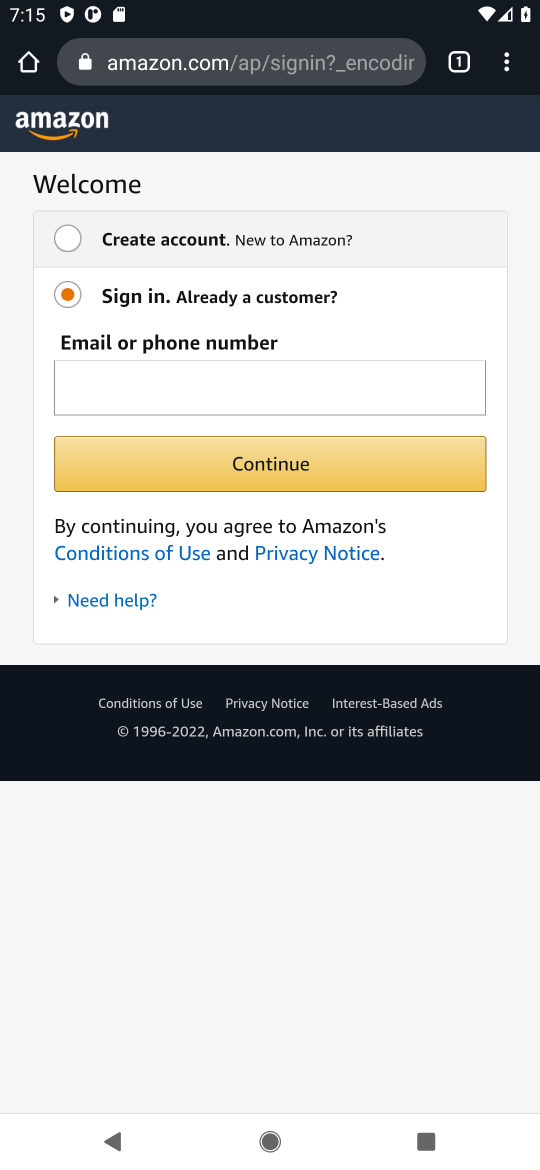
Step 44: task complete